Your task to perform on an android device: open chrome privacy settings Image 0: 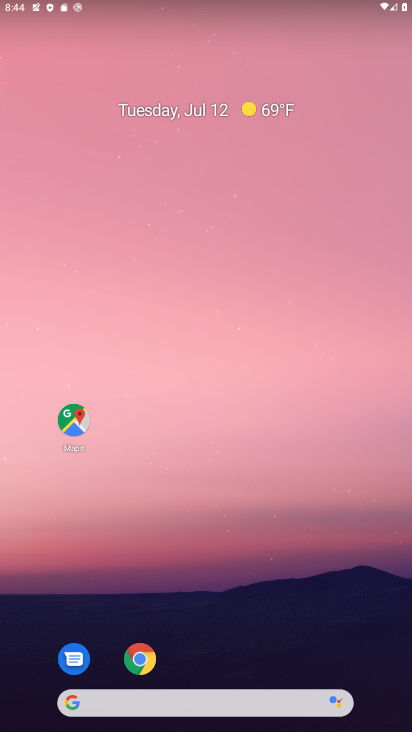
Step 0: drag from (220, 727) to (220, 690)
Your task to perform on an android device: open chrome privacy settings Image 1: 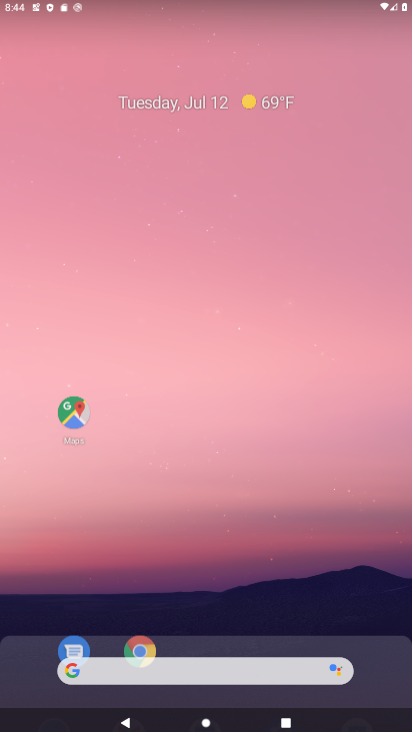
Step 1: drag from (220, 240) to (220, 130)
Your task to perform on an android device: open chrome privacy settings Image 2: 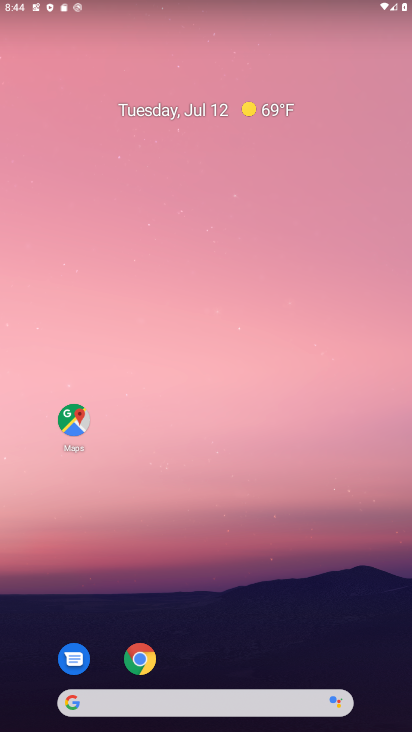
Step 2: drag from (211, 725) to (221, 220)
Your task to perform on an android device: open chrome privacy settings Image 3: 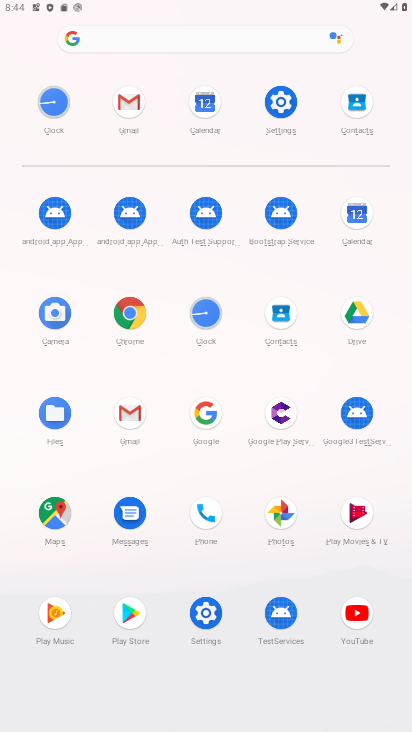
Step 3: click (134, 317)
Your task to perform on an android device: open chrome privacy settings Image 4: 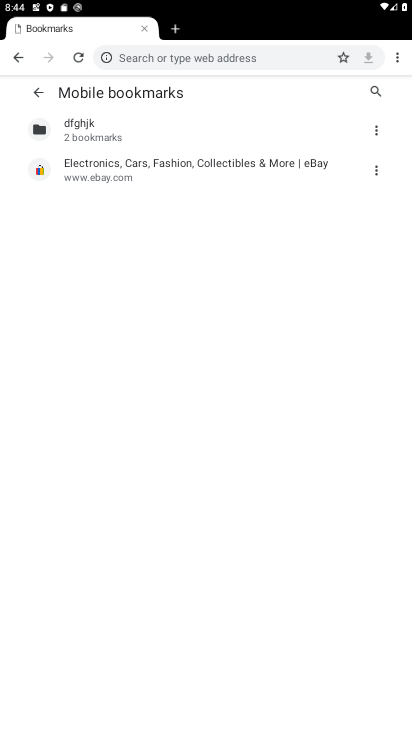
Step 4: click (397, 61)
Your task to perform on an android device: open chrome privacy settings Image 5: 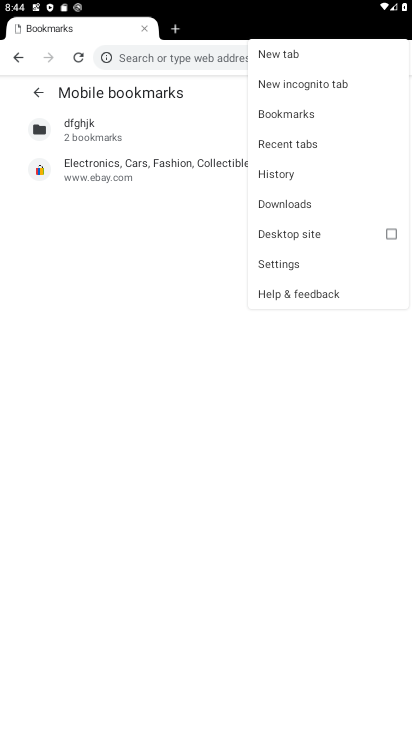
Step 5: click (281, 258)
Your task to perform on an android device: open chrome privacy settings Image 6: 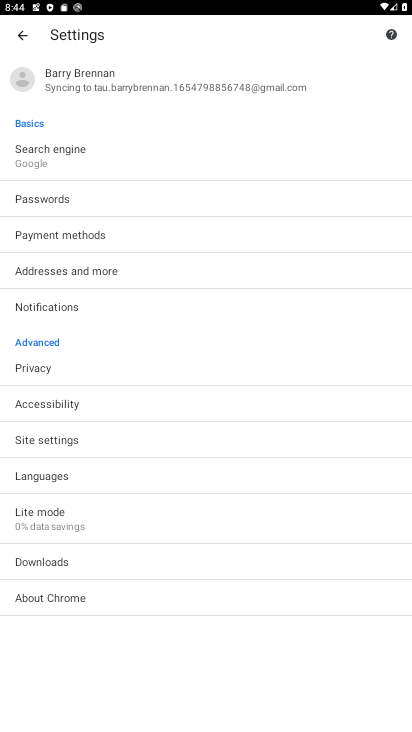
Step 6: click (33, 369)
Your task to perform on an android device: open chrome privacy settings Image 7: 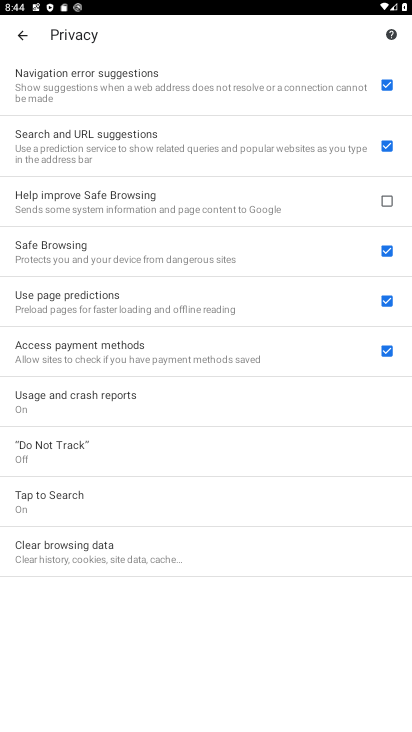
Step 7: task complete